Your task to perform on an android device: set the stopwatch Image 0: 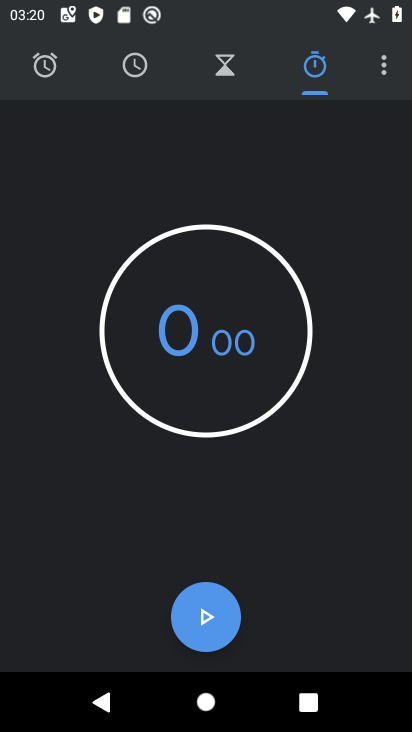
Step 0: click (211, 611)
Your task to perform on an android device: set the stopwatch Image 1: 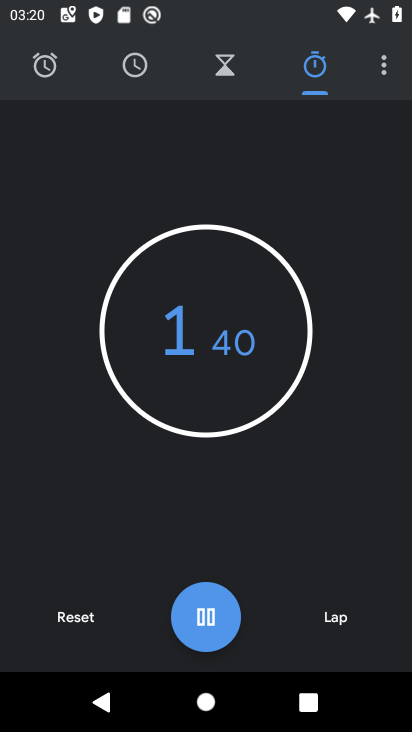
Step 1: task complete